Your task to perform on an android device: Search for Mexican restaurants on Maps Image 0: 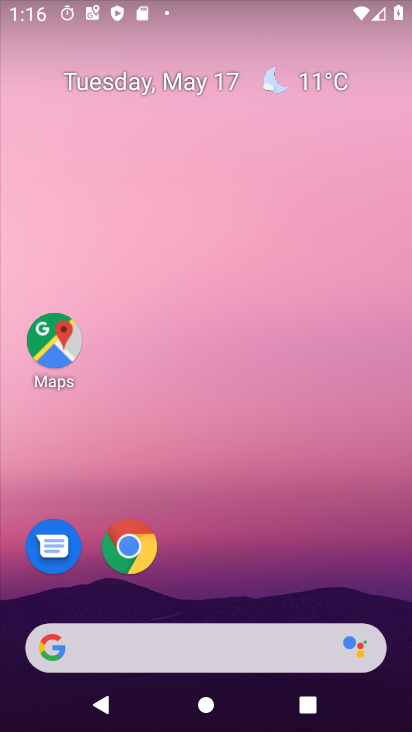
Step 0: drag from (183, 627) to (262, 315)
Your task to perform on an android device: Search for Mexican restaurants on Maps Image 1: 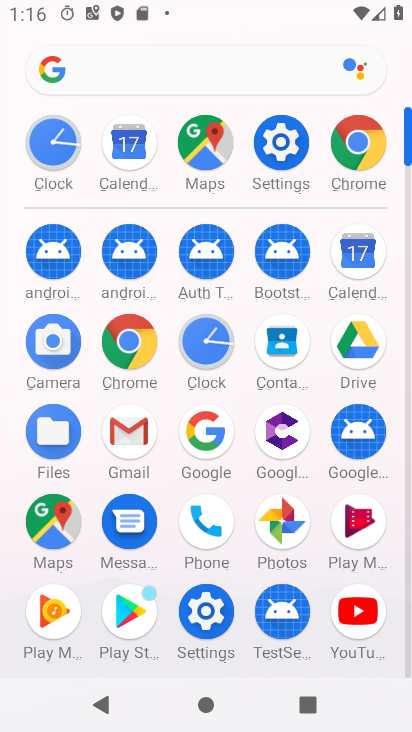
Step 1: click (196, 141)
Your task to perform on an android device: Search for Mexican restaurants on Maps Image 2: 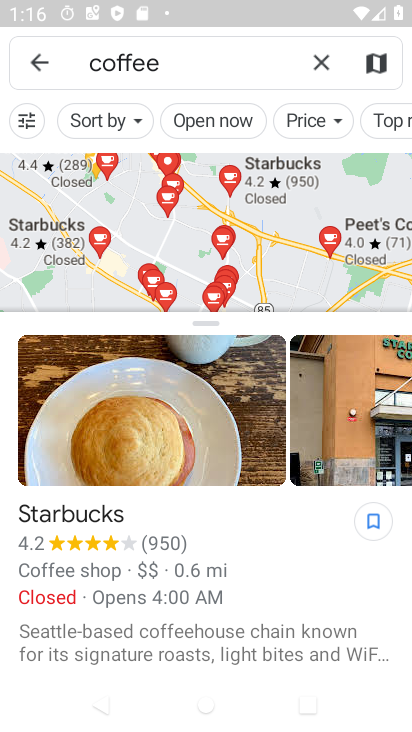
Step 2: click (322, 63)
Your task to perform on an android device: Search for Mexican restaurants on Maps Image 3: 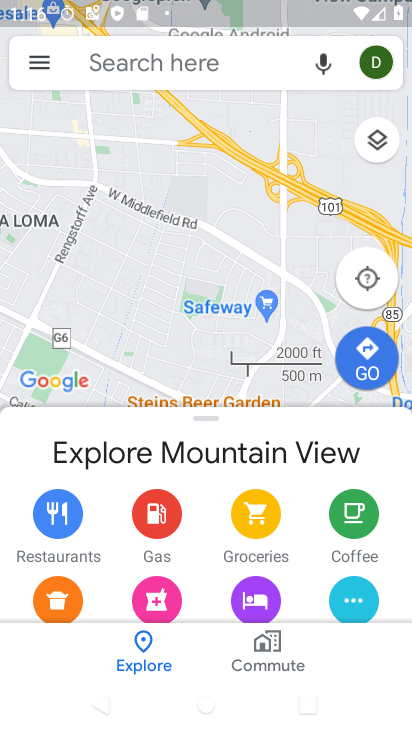
Step 3: click (216, 56)
Your task to perform on an android device: Search for Mexican restaurants on Maps Image 4: 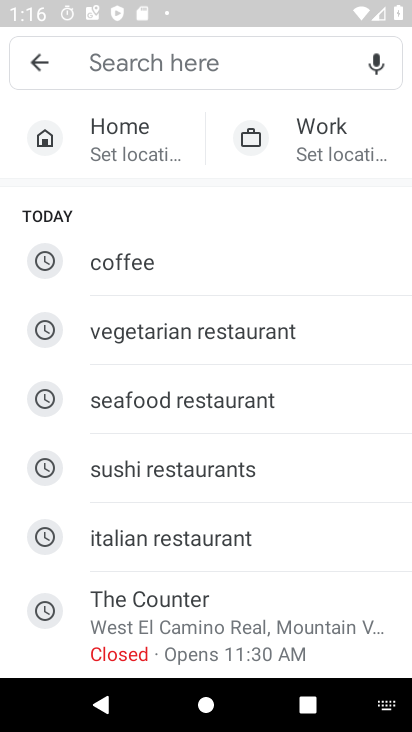
Step 4: drag from (237, 549) to (291, 275)
Your task to perform on an android device: Search for Mexican restaurants on Maps Image 5: 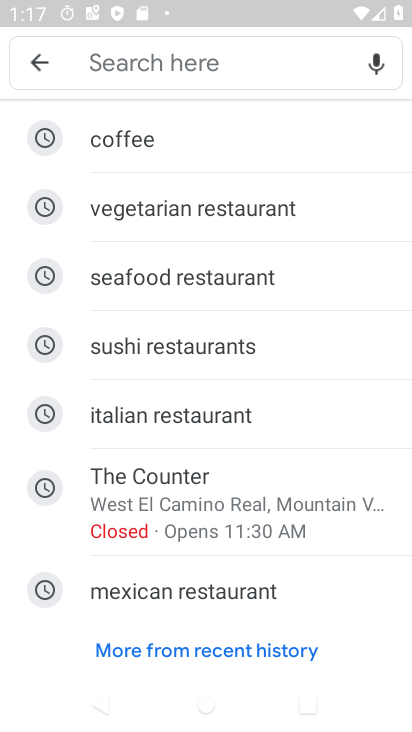
Step 5: drag from (297, 267) to (231, 459)
Your task to perform on an android device: Search for Mexican restaurants on Maps Image 6: 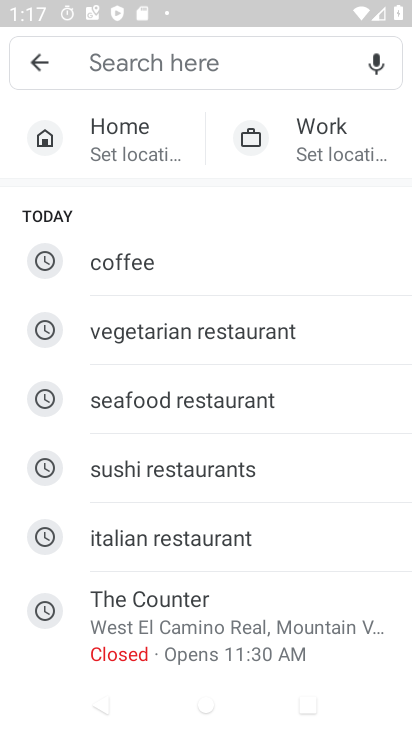
Step 6: type "mexican"
Your task to perform on an android device: Search for Mexican restaurants on Maps Image 7: 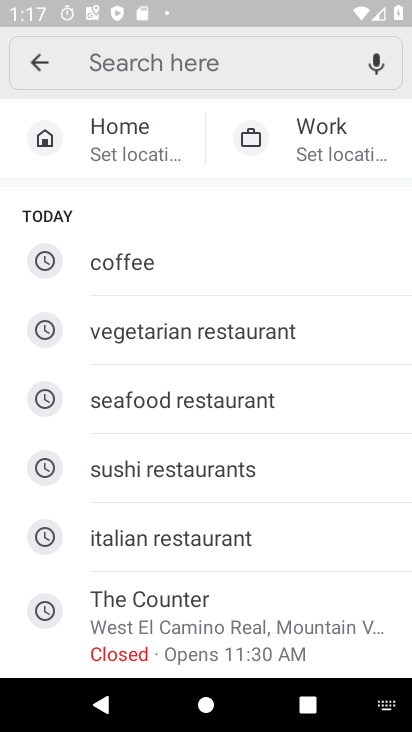
Step 7: click (150, 57)
Your task to perform on an android device: Search for Mexican restaurants on Maps Image 8: 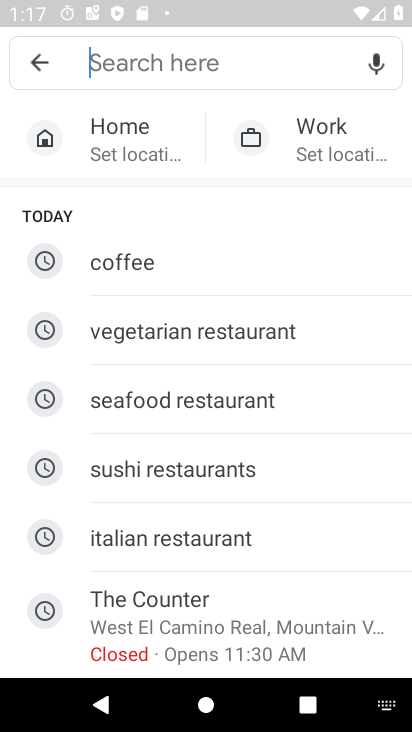
Step 8: type "mexican"
Your task to perform on an android device: Search for Mexican restaurants on Maps Image 9: 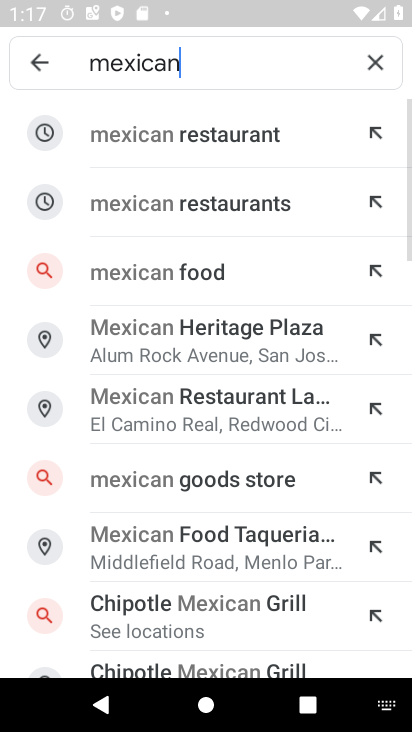
Step 9: click (260, 141)
Your task to perform on an android device: Search for Mexican restaurants on Maps Image 10: 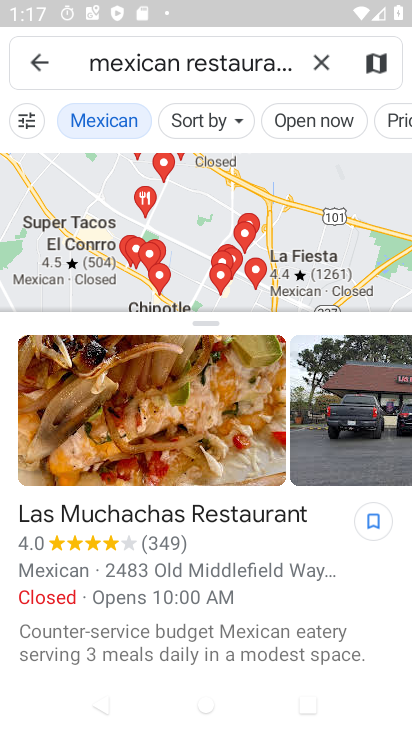
Step 10: task complete